Your task to perform on an android device: change notifications settings Image 0: 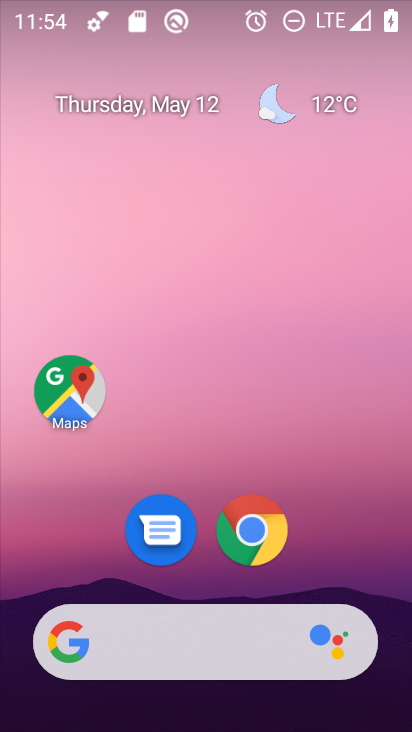
Step 0: press home button
Your task to perform on an android device: change notifications settings Image 1: 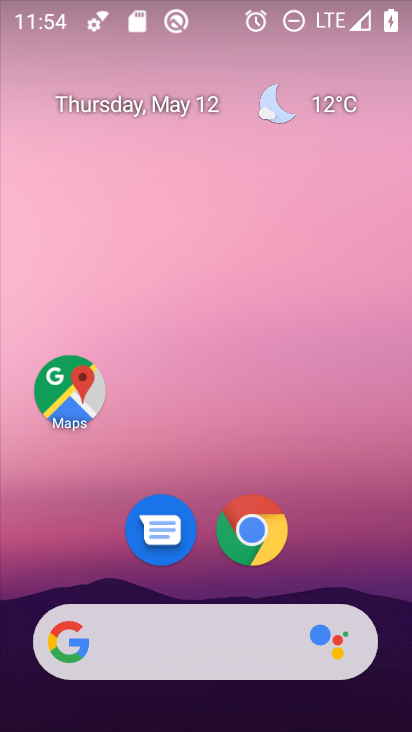
Step 1: drag from (210, 615) to (216, 81)
Your task to perform on an android device: change notifications settings Image 2: 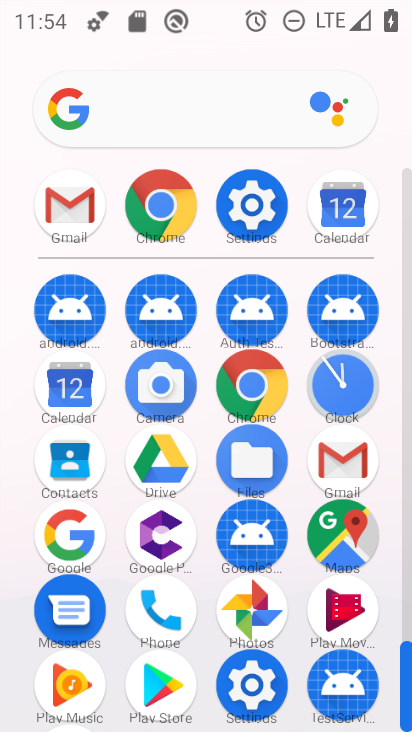
Step 2: click (243, 225)
Your task to perform on an android device: change notifications settings Image 3: 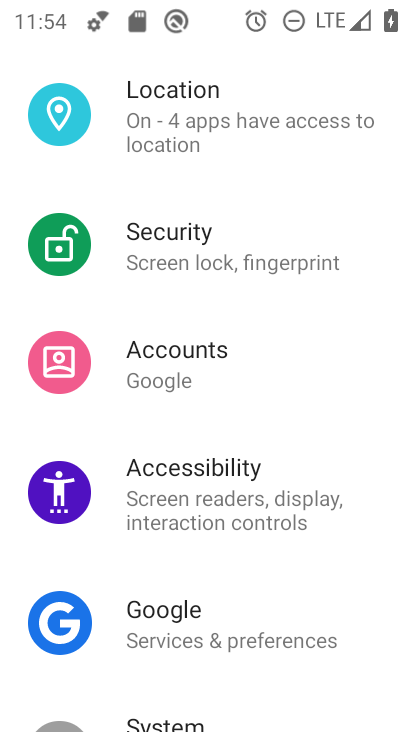
Step 3: drag from (274, 196) to (220, 648)
Your task to perform on an android device: change notifications settings Image 4: 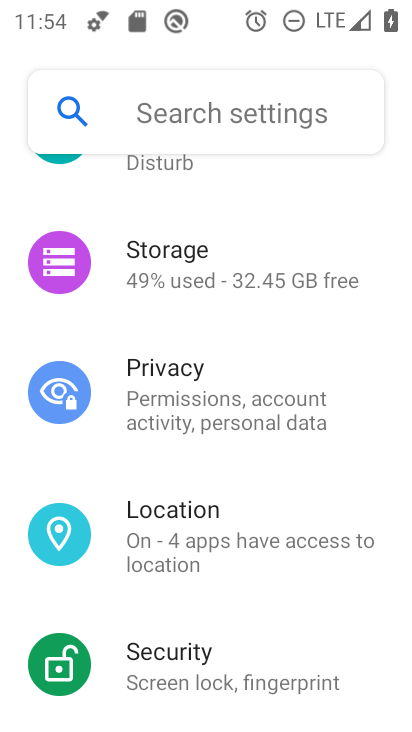
Step 4: drag from (263, 194) to (202, 698)
Your task to perform on an android device: change notifications settings Image 5: 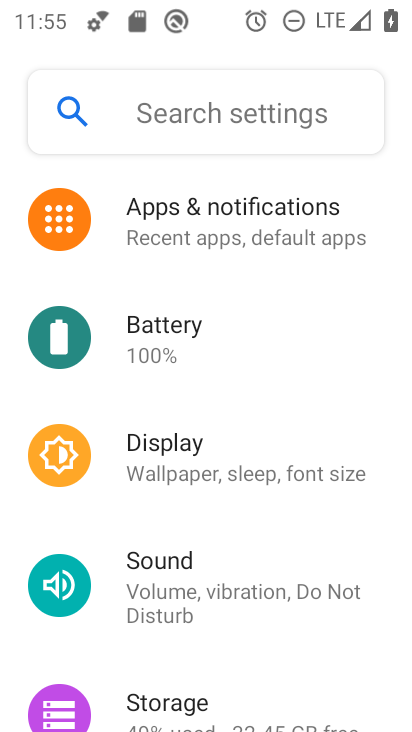
Step 5: click (239, 209)
Your task to perform on an android device: change notifications settings Image 6: 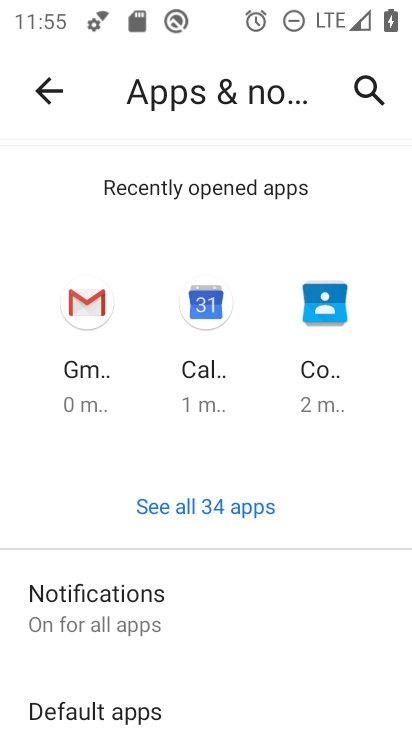
Step 6: click (65, 601)
Your task to perform on an android device: change notifications settings Image 7: 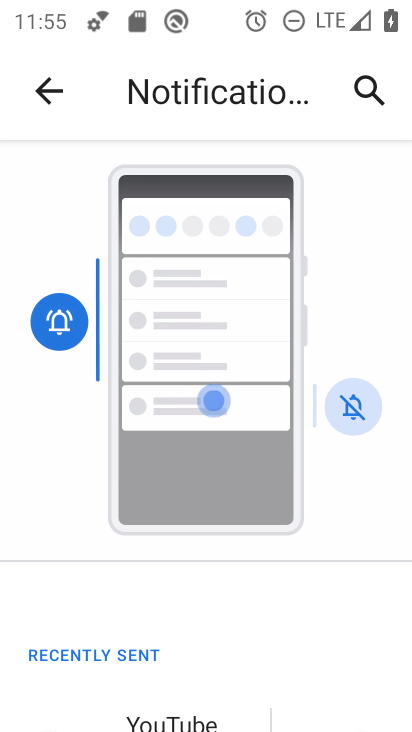
Step 7: task complete